Your task to perform on an android device: Go to Reddit.com Image 0: 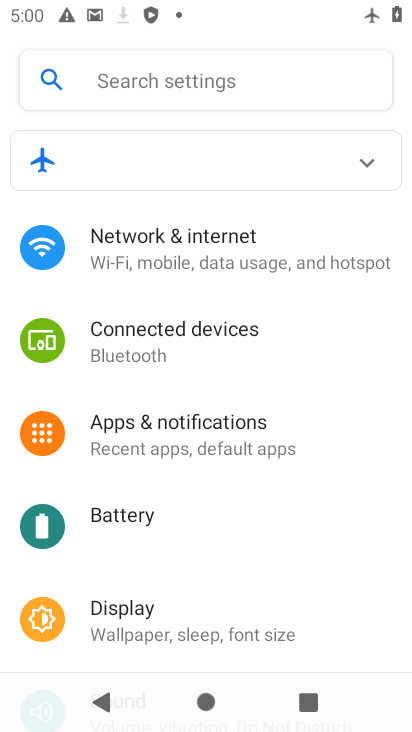
Step 0: drag from (198, 592) to (214, 28)
Your task to perform on an android device: Go to Reddit.com Image 1: 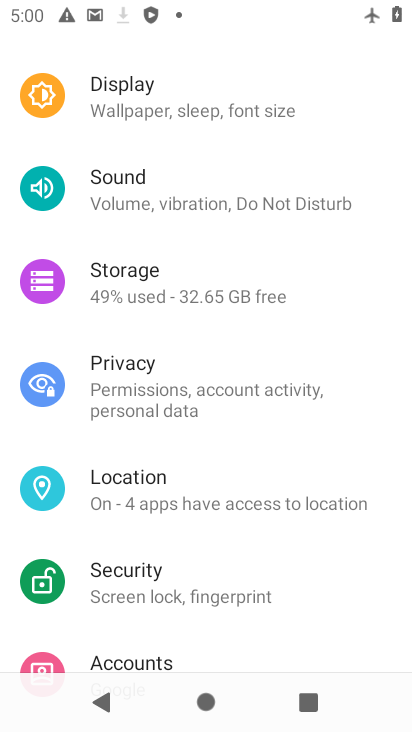
Step 1: drag from (198, 563) to (245, 272)
Your task to perform on an android device: Go to Reddit.com Image 2: 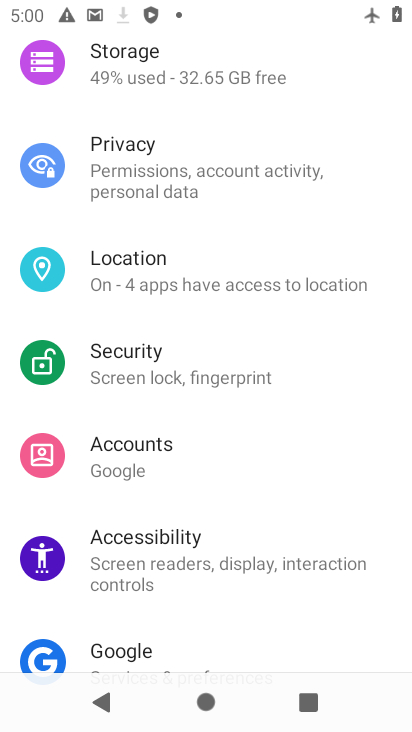
Step 2: drag from (262, 228) to (411, 576)
Your task to perform on an android device: Go to Reddit.com Image 3: 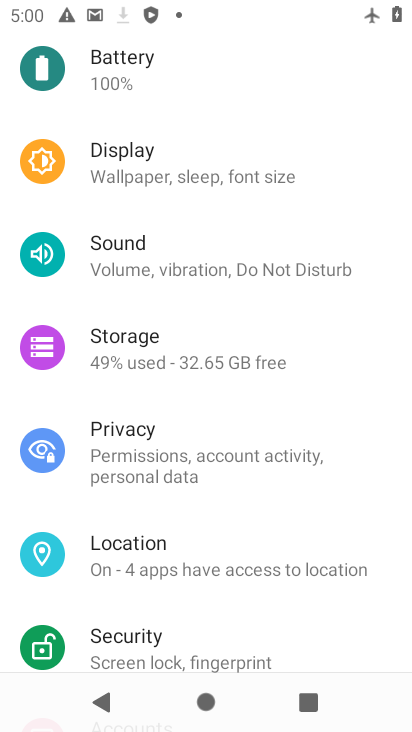
Step 3: drag from (204, 190) to (328, 723)
Your task to perform on an android device: Go to Reddit.com Image 4: 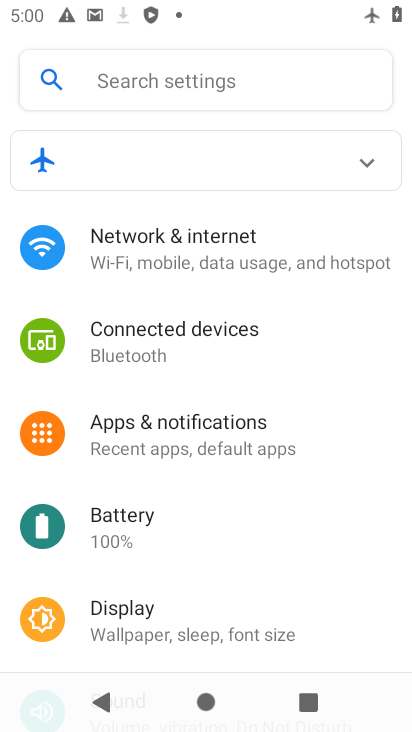
Step 4: click (244, 77)
Your task to perform on an android device: Go to Reddit.com Image 5: 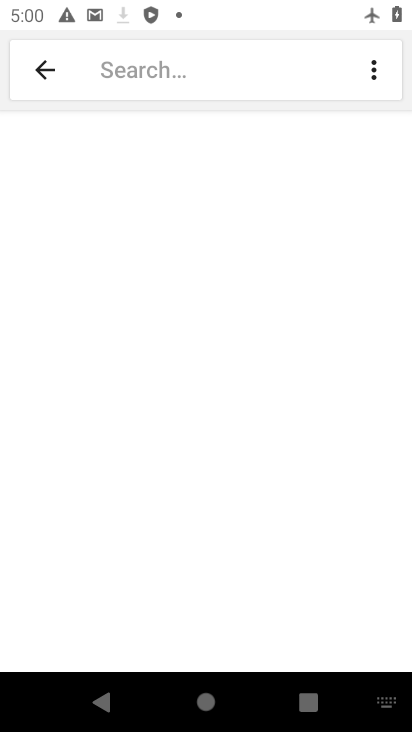
Step 5: click (351, 444)
Your task to perform on an android device: Go to Reddit.com Image 6: 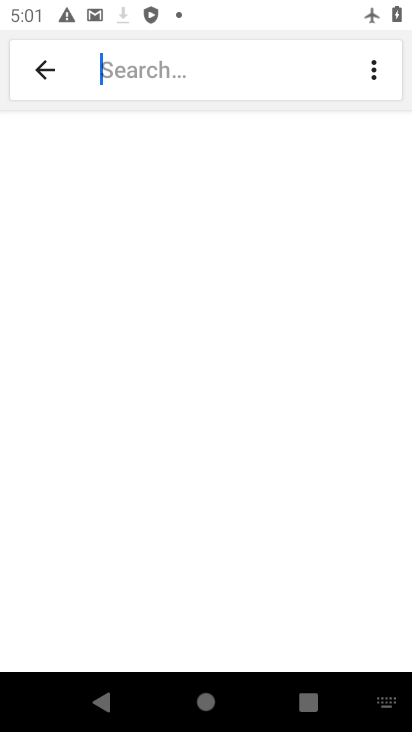
Step 6: type "Reddit.com"
Your task to perform on an android device: Go to Reddit.com Image 7: 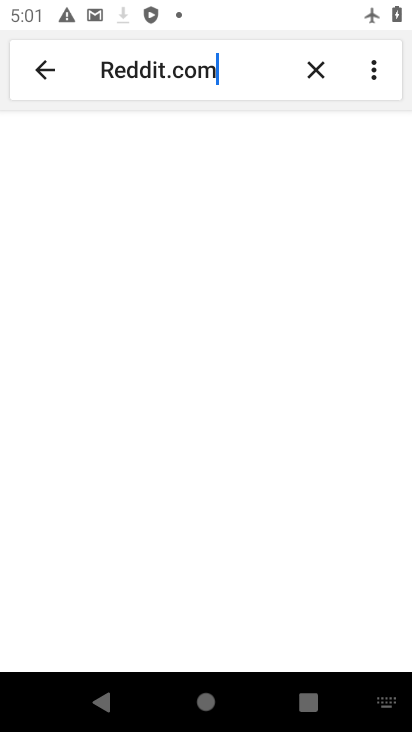
Step 7: type ""
Your task to perform on an android device: Go to Reddit.com Image 8: 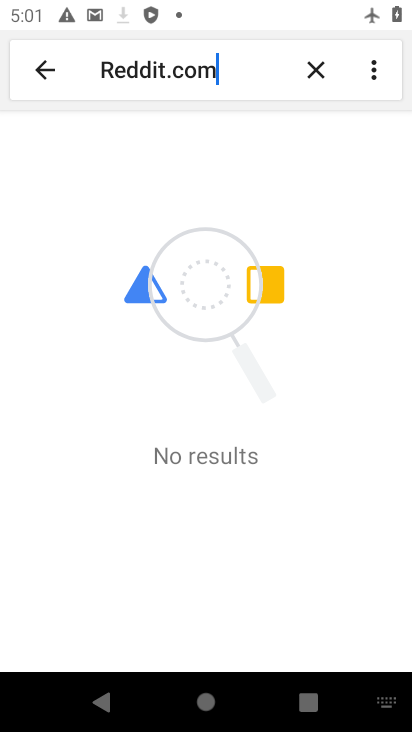
Step 8: click (158, 161)
Your task to perform on an android device: Go to Reddit.com Image 9: 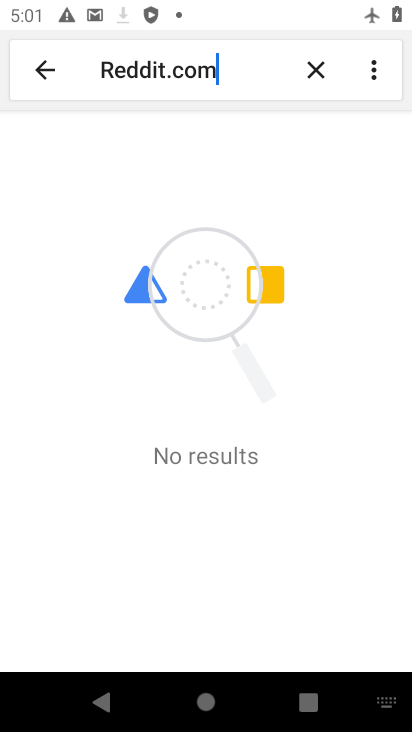
Step 9: click (320, 78)
Your task to perform on an android device: Go to Reddit.com Image 10: 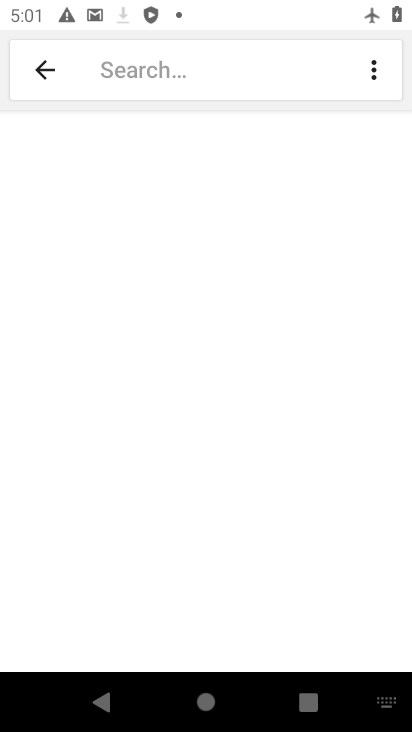
Step 10: click (48, 67)
Your task to perform on an android device: Go to Reddit.com Image 11: 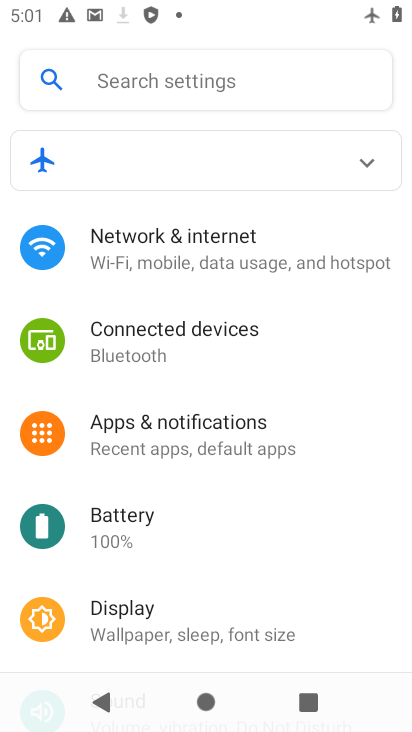
Step 11: press home button
Your task to perform on an android device: Go to Reddit.com Image 12: 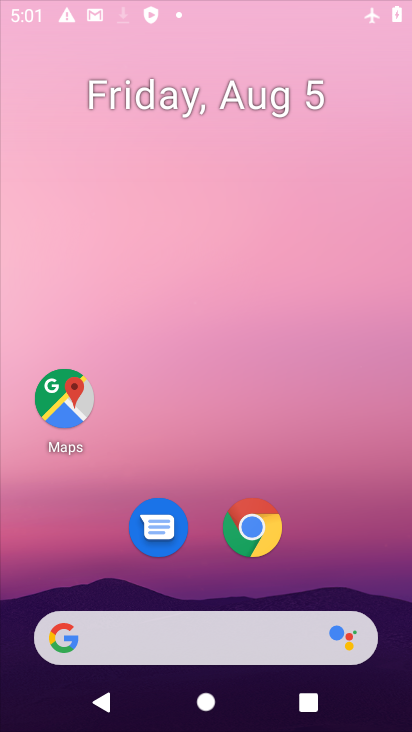
Step 12: drag from (244, 592) to (295, 224)
Your task to perform on an android device: Go to Reddit.com Image 13: 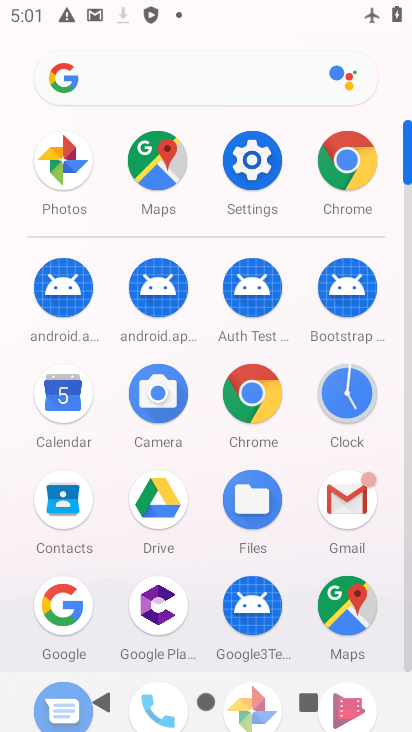
Step 13: click (152, 88)
Your task to perform on an android device: Go to Reddit.com Image 14: 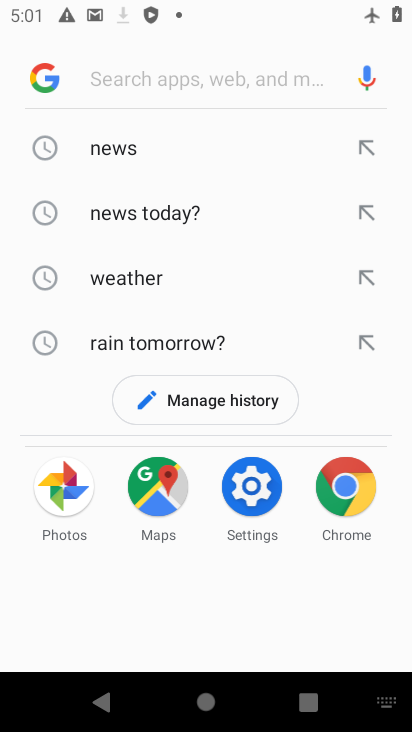
Step 14: type "Reddit.com"
Your task to perform on an android device: Go to Reddit.com Image 15: 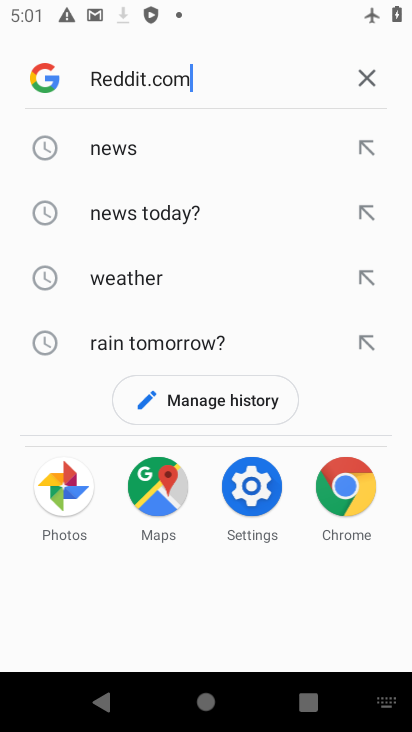
Step 15: type ""
Your task to perform on an android device: Go to Reddit.com Image 16: 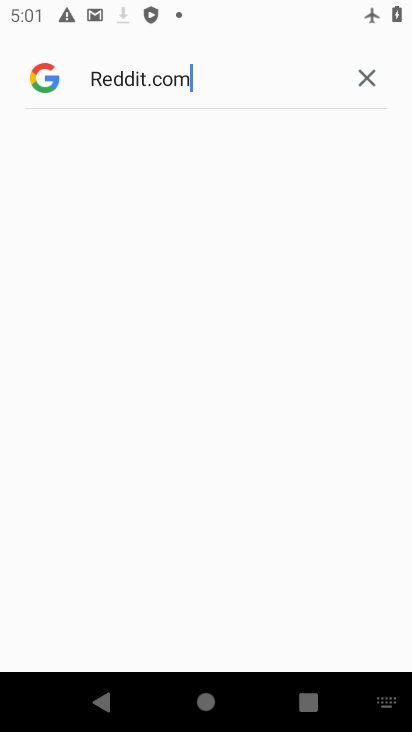
Step 16: task complete